Your task to perform on an android device: turn pop-ups on in chrome Image 0: 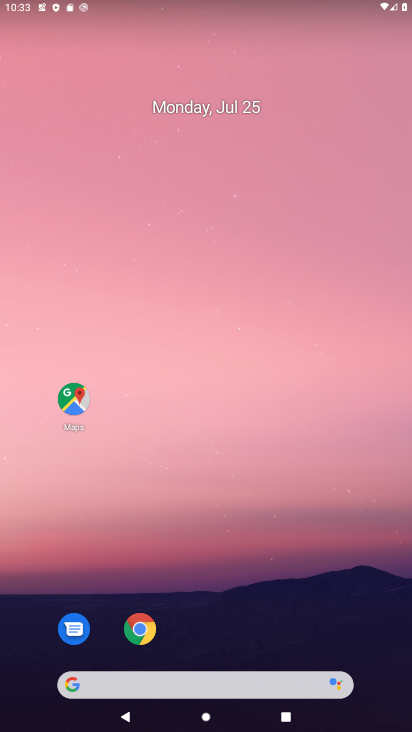
Step 0: click (141, 630)
Your task to perform on an android device: turn pop-ups on in chrome Image 1: 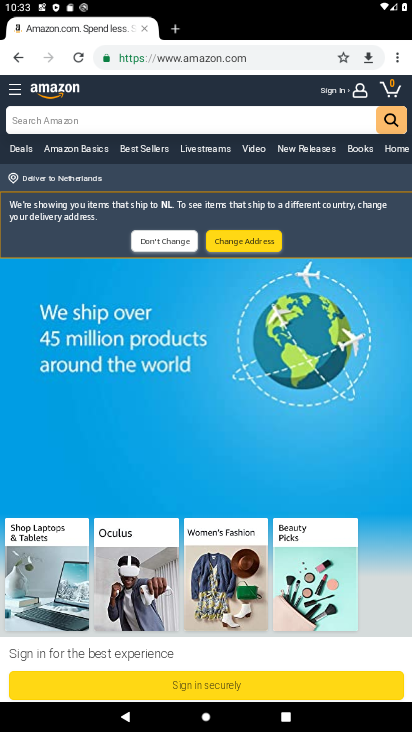
Step 1: drag from (398, 57) to (280, 390)
Your task to perform on an android device: turn pop-ups on in chrome Image 2: 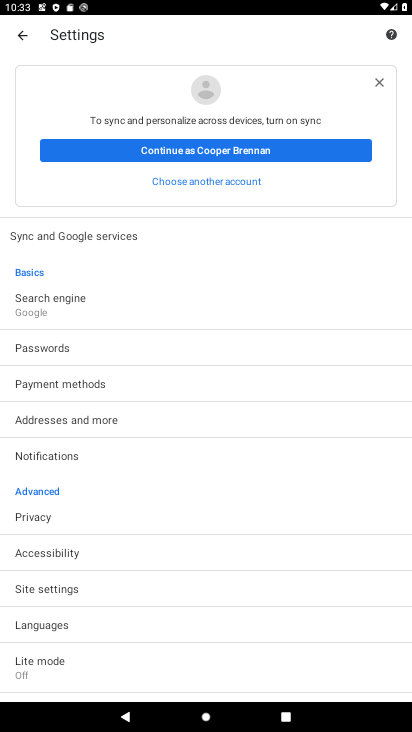
Step 2: click (71, 582)
Your task to perform on an android device: turn pop-ups on in chrome Image 3: 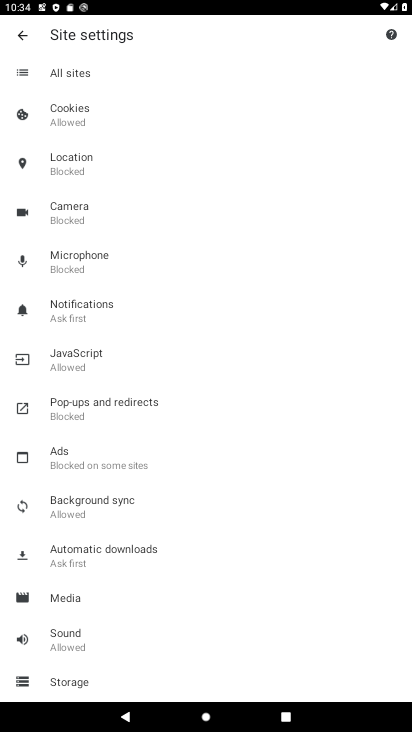
Step 3: click (88, 412)
Your task to perform on an android device: turn pop-ups on in chrome Image 4: 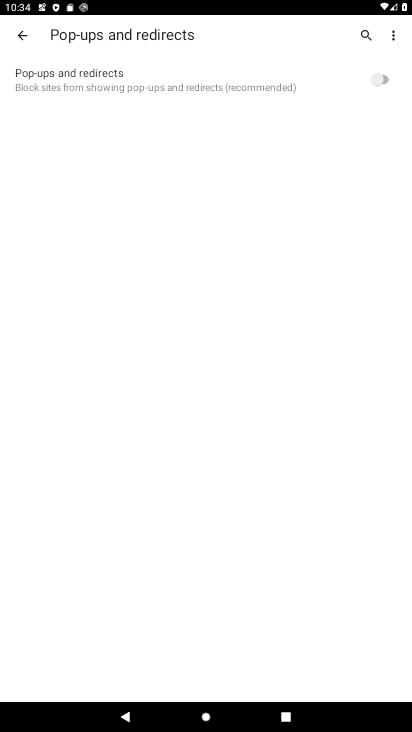
Step 4: click (374, 81)
Your task to perform on an android device: turn pop-ups on in chrome Image 5: 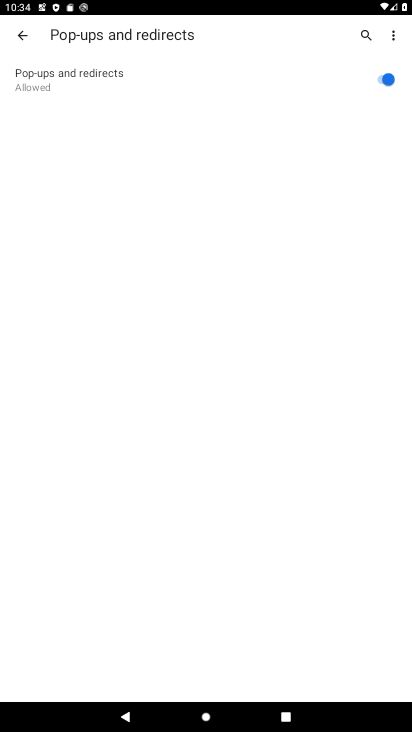
Step 5: task complete